Your task to perform on an android device: see tabs open on other devices in the chrome app Image 0: 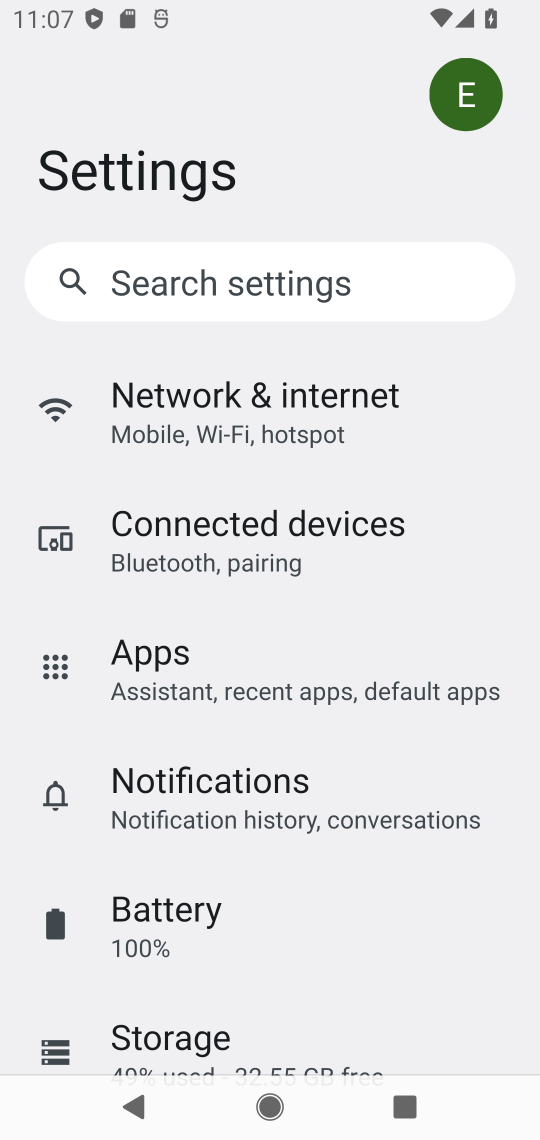
Step 0: press home button
Your task to perform on an android device: see tabs open on other devices in the chrome app Image 1: 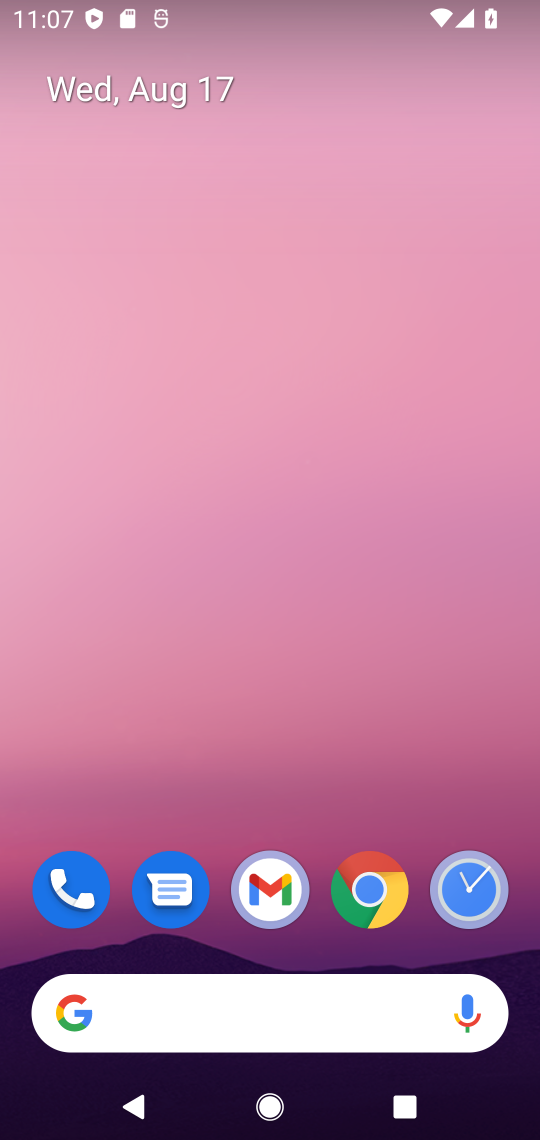
Step 1: click (371, 894)
Your task to perform on an android device: see tabs open on other devices in the chrome app Image 2: 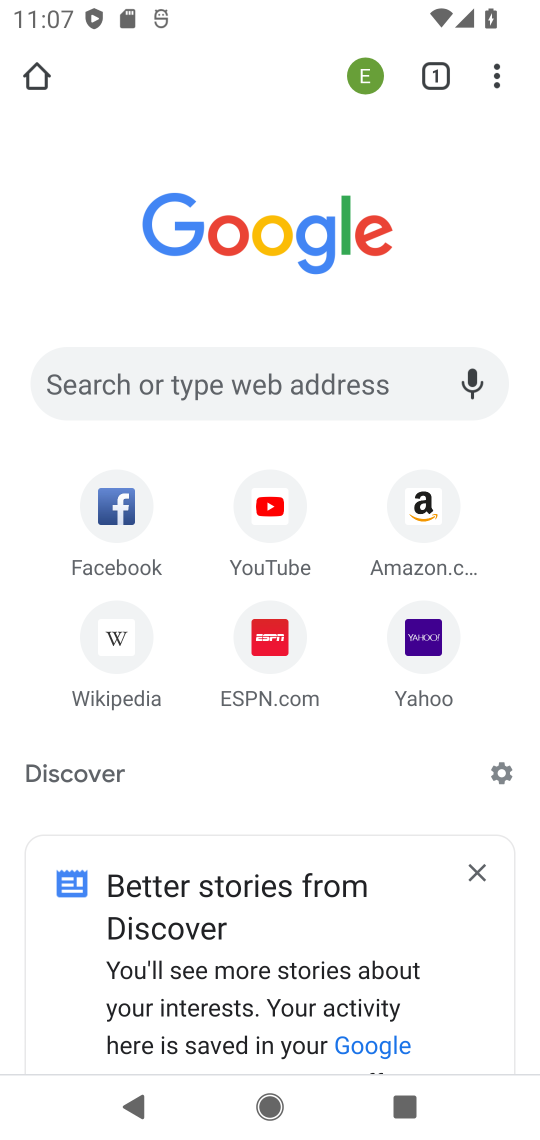
Step 2: click (493, 84)
Your task to perform on an android device: see tabs open on other devices in the chrome app Image 3: 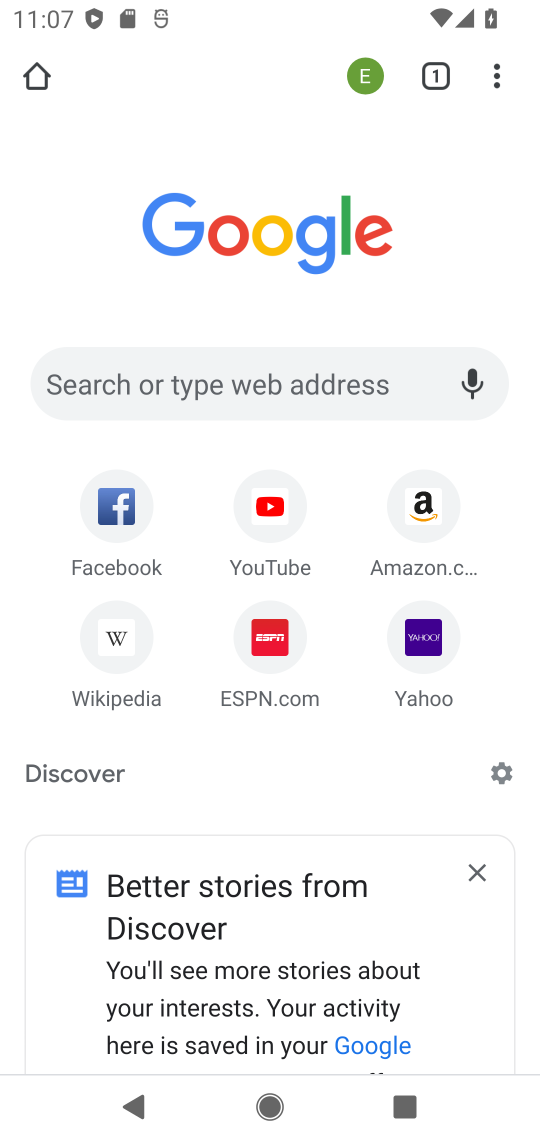
Step 3: click (493, 86)
Your task to perform on an android device: see tabs open on other devices in the chrome app Image 4: 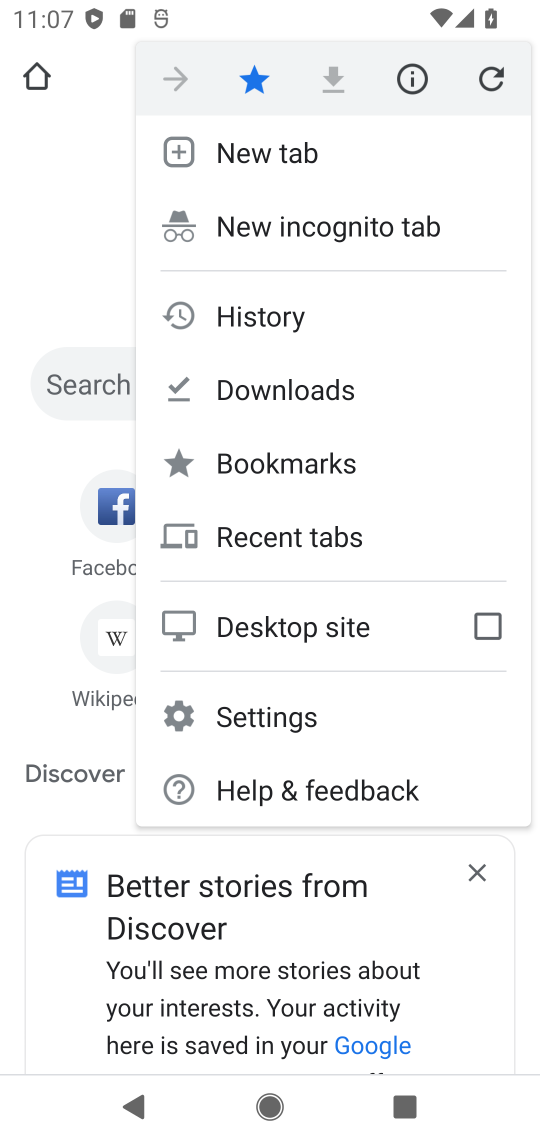
Step 4: click (288, 535)
Your task to perform on an android device: see tabs open on other devices in the chrome app Image 5: 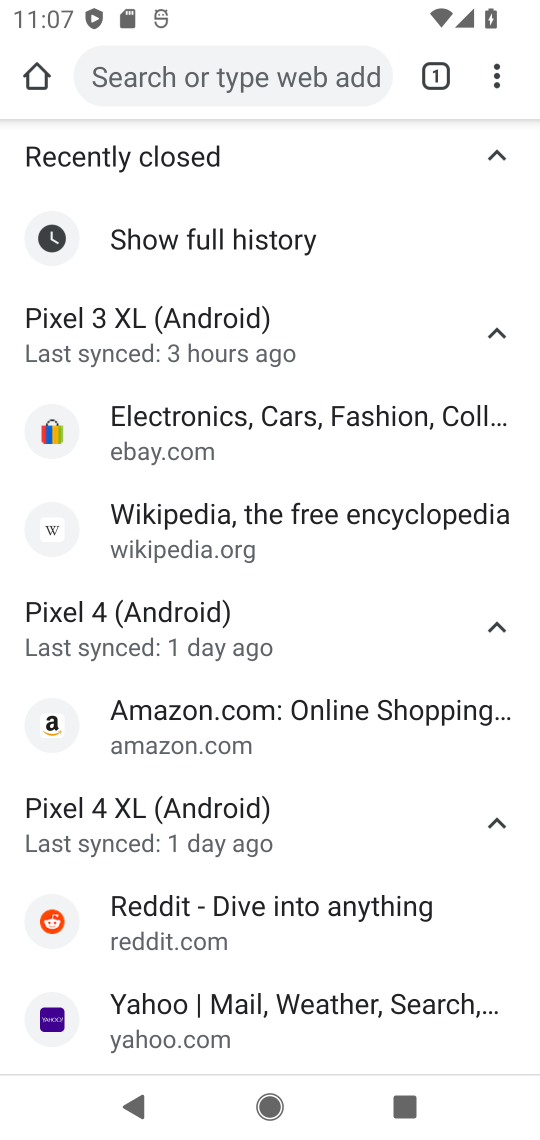
Step 5: task complete